Your task to perform on an android device: Show me recent news Image 0: 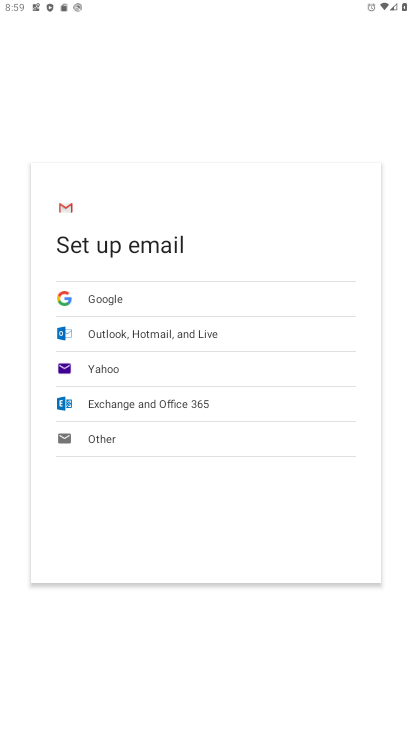
Step 0: press home button
Your task to perform on an android device: Show me recent news Image 1: 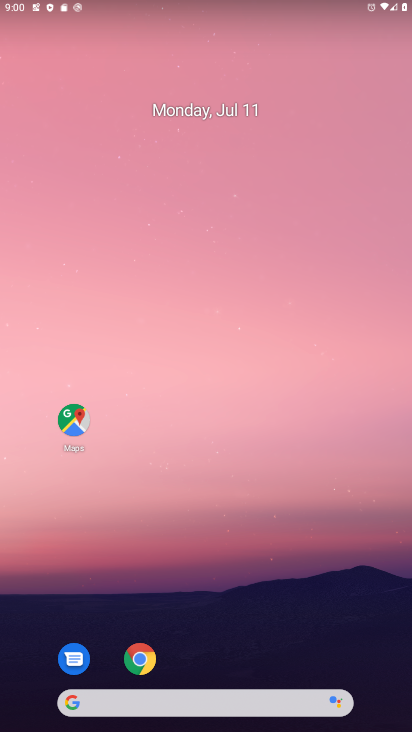
Step 1: task complete